Your task to perform on an android device: read, delete, or share a saved page in the chrome app Image 0: 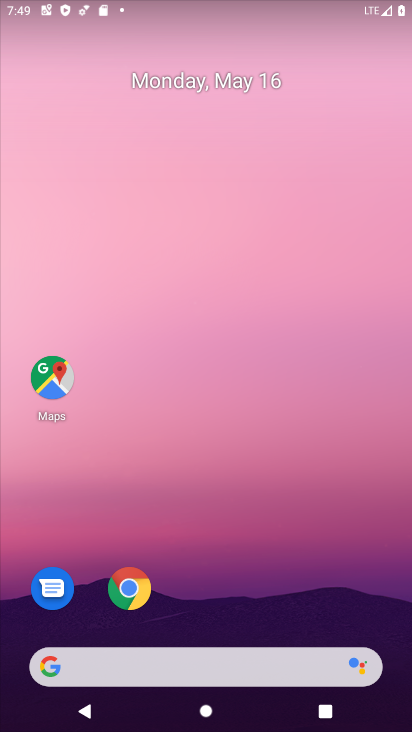
Step 0: drag from (280, 587) to (152, 22)
Your task to perform on an android device: read, delete, or share a saved page in the chrome app Image 1: 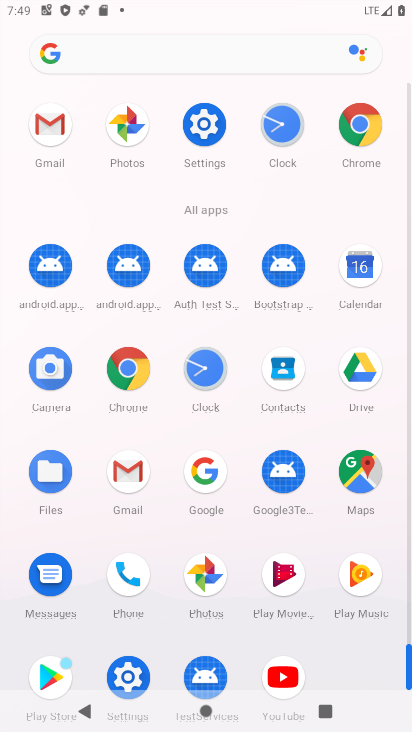
Step 1: drag from (5, 603) to (20, 324)
Your task to perform on an android device: read, delete, or share a saved page in the chrome app Image 2: 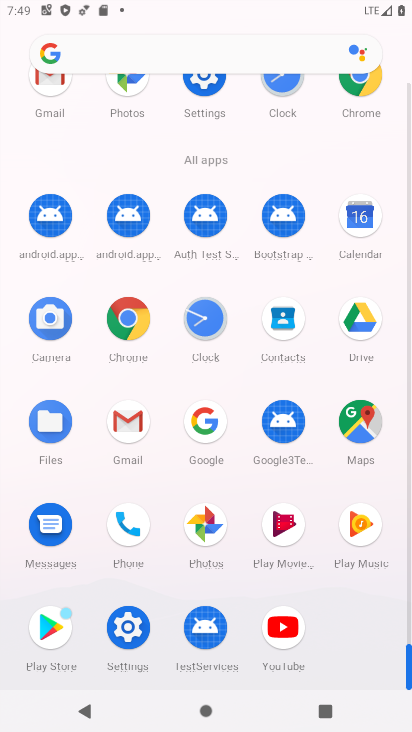
Step 2: click (128, 317)
Your task to perform on an android device: read, delete, or share a saved page in the chrome app Image 3: 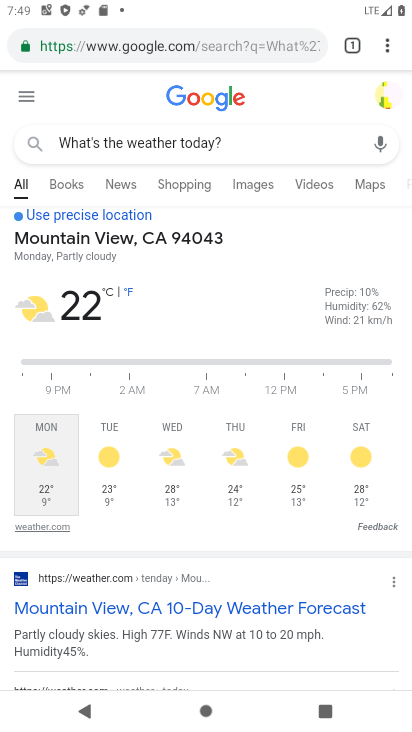
Step 3: task complete